Your task to perform on an android device: turn on location history Image 0: 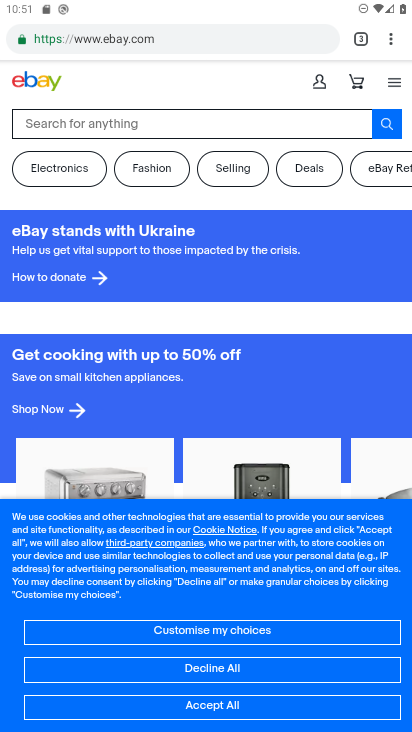
Step 0: press home button
Your task to perform on an android device: turn on location history Image 1: 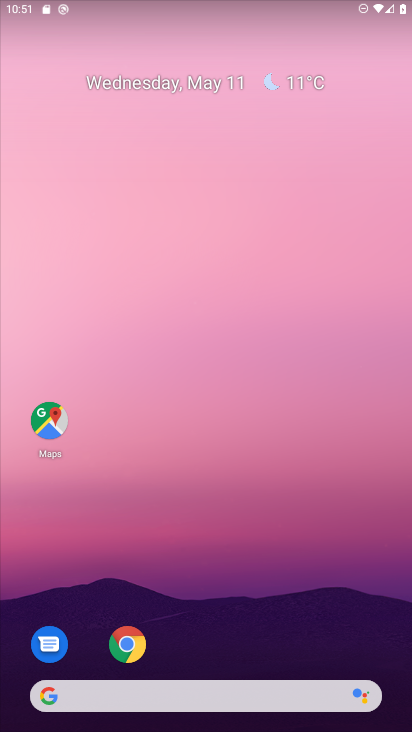
Step 1: click (49, 423)
Your task to perform on an android device: turn on location history Image 2: 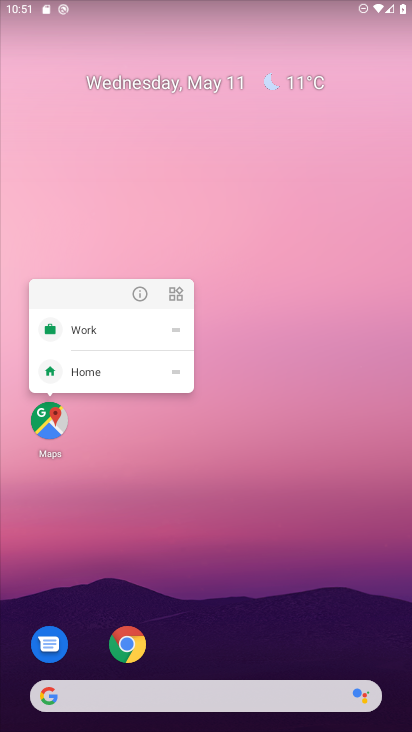
Step 2: click (145, 443)
Your task to perform on an android device: turn on location history Image 3: 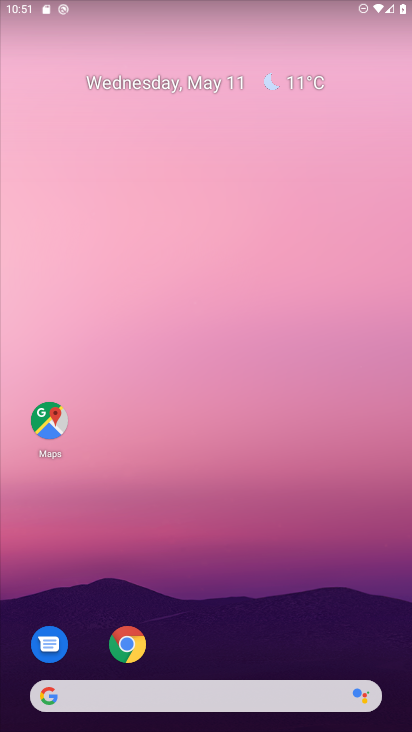
Step 3: click (51, 420)
Your task to perform on an android device: turn on location history Image 4: 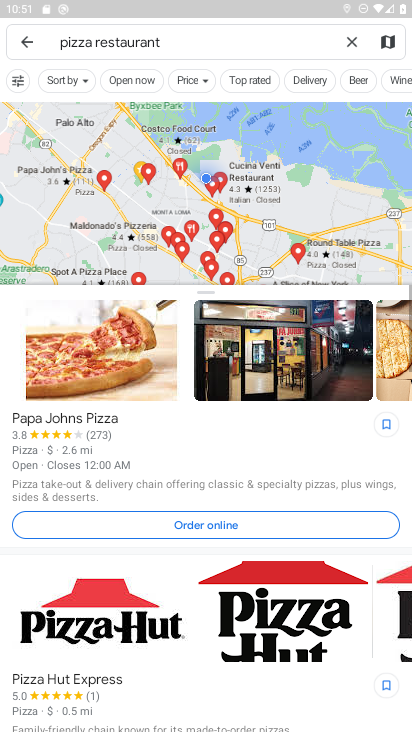
Step 4: click (350, 46)
Your task to perform on an android device: turn on location history Image 5: 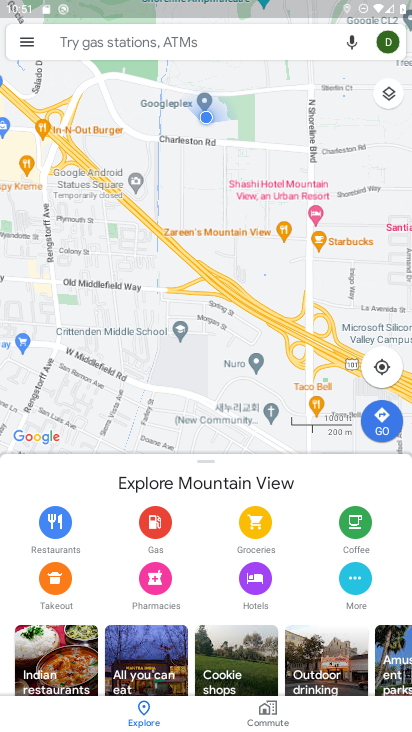
Step 5: click (27, 41)
Your task to perform on an android device: turn on location history Image 6: 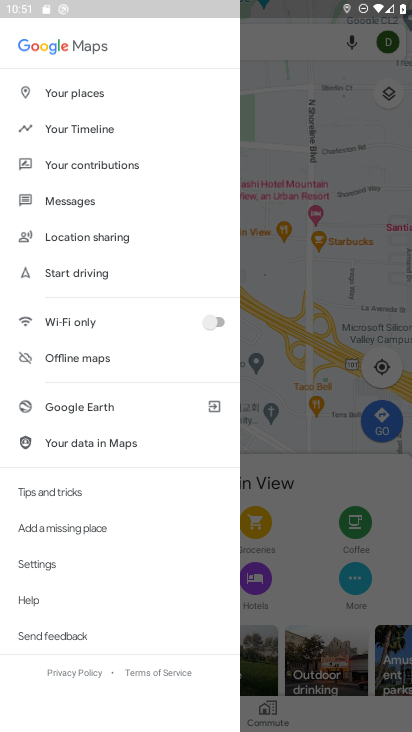
Step 6: click (94, 132)
Your task to perform on an android device: turn on location history Image 7: 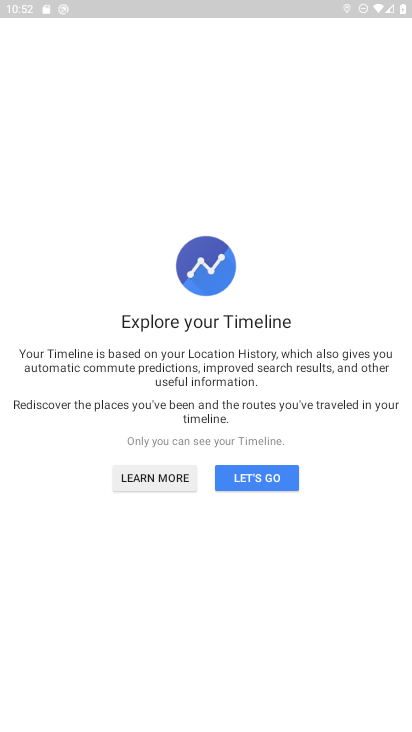
Step 7: click (254, 483)
Your task to perform on an android device: turn on location history Image 8: 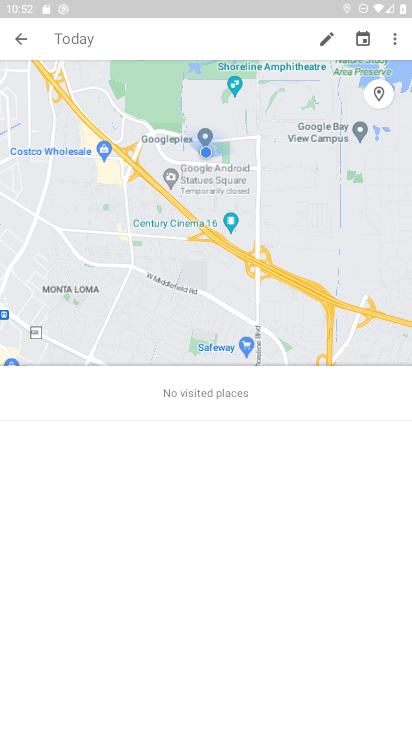
Step 8: click (397, 39)
Your task to perform on an android device: turn on location history Image 9: 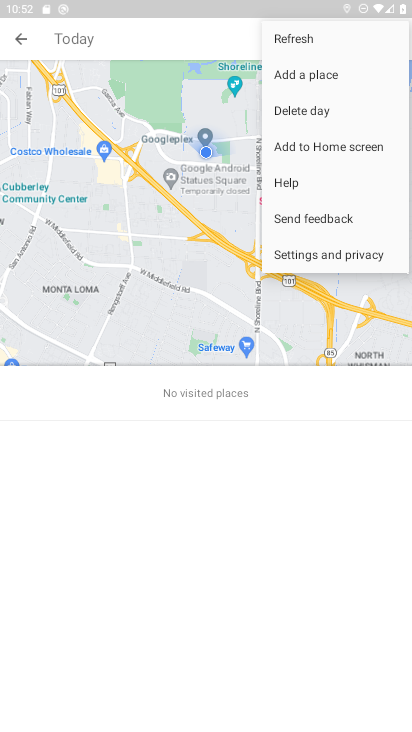
Step 9: click (340, 252)
Your task to perform on an android device: turn on location history Image 10: 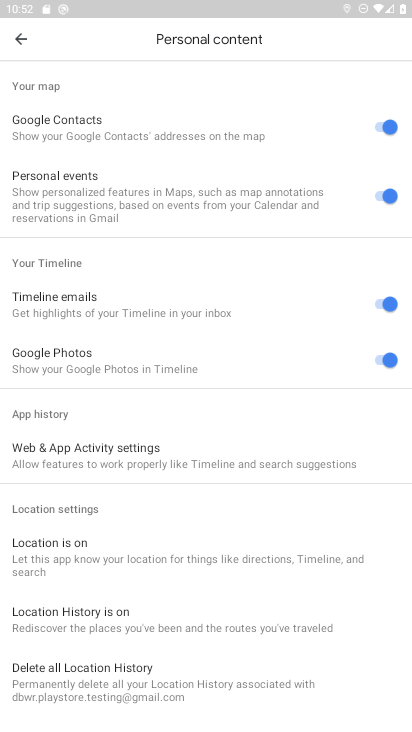
Step 10: click (101, 628)
Your task to perform on an android device: turn on location history Image 11: 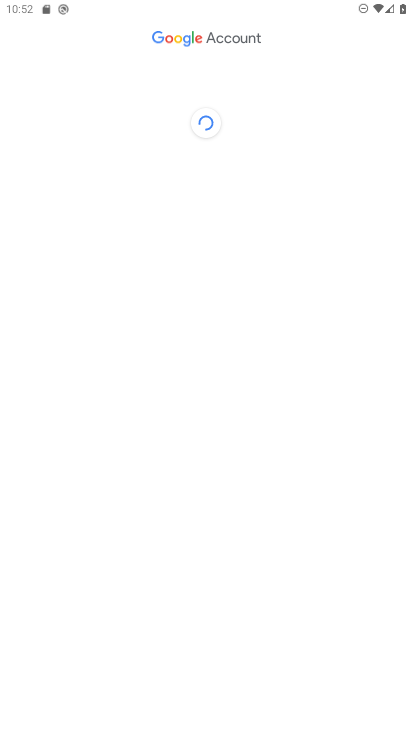
Step 11: click (101, 628)
Your task to perform on an android device: turn on location history Image 12: 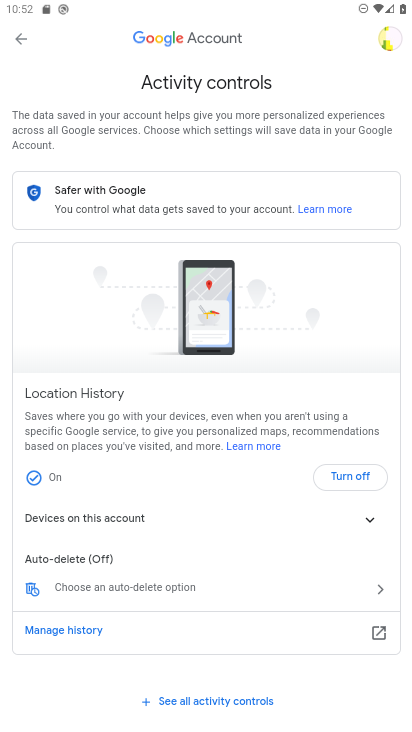
Step 12: task complete